Your task to perform on an android device: What is the news today? Image 0: 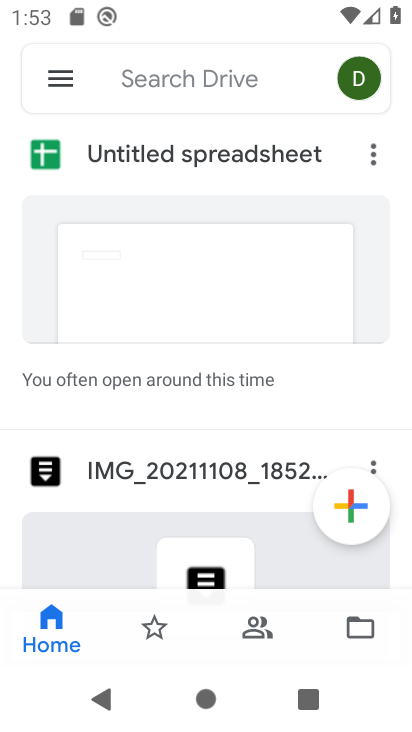
Step 0: press home button
Your task to perform on an android device: What is the news today? Image 1: 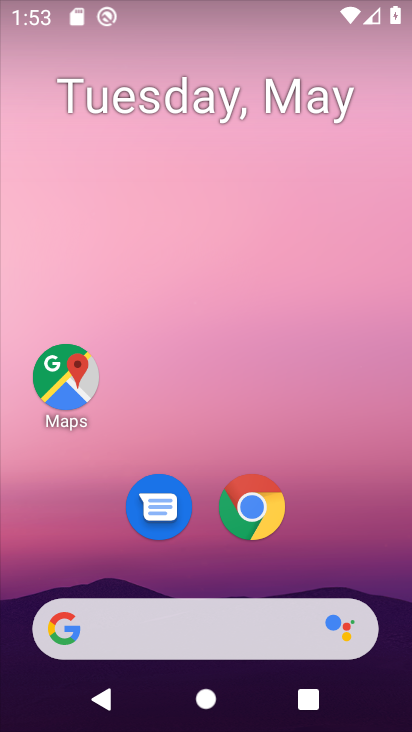
Step 1: drag from (214, 575) to (225, 138)
Your task to perform on an android device: What is the news today? Image 2: 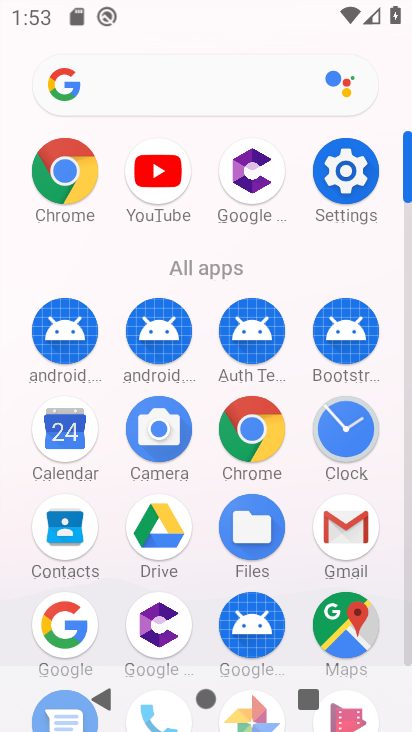
Step 2: click (77, 622)
Your task to perform on an android device: What is the news today? Image 3: 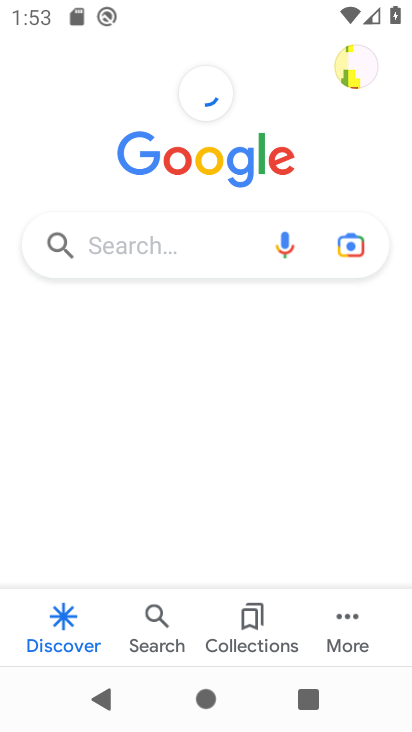
Step 3: click (173, 241)
Your task to perform on an android device: What is the news today? Image 4: 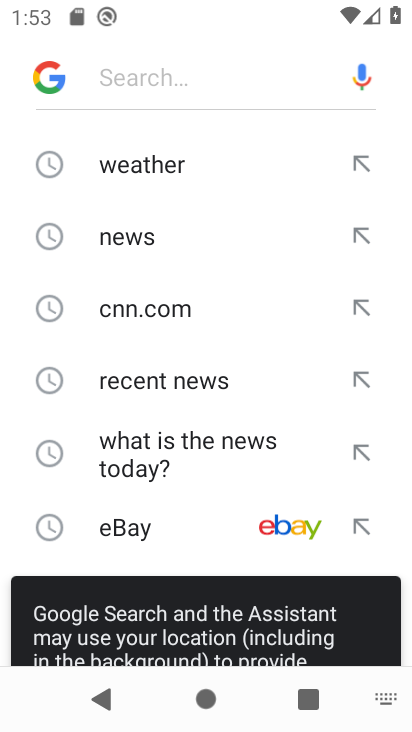
Step 4: click (173, 241)
Your task to perform on an android device: What is the news today? Image 5: 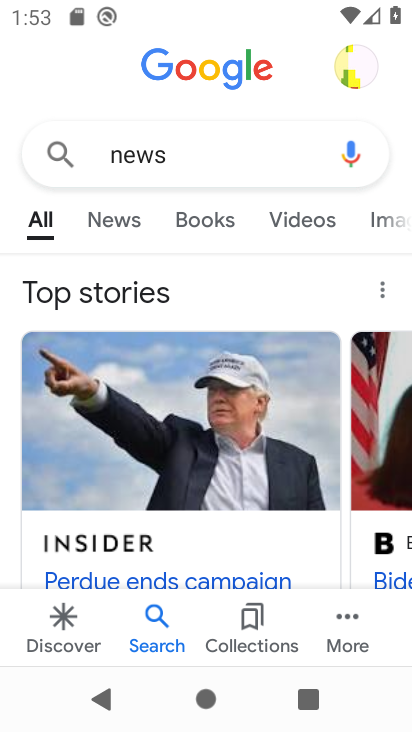
Step 5: click (105, 221)
Your task to perform on an android device: What is the news today? Image 6: 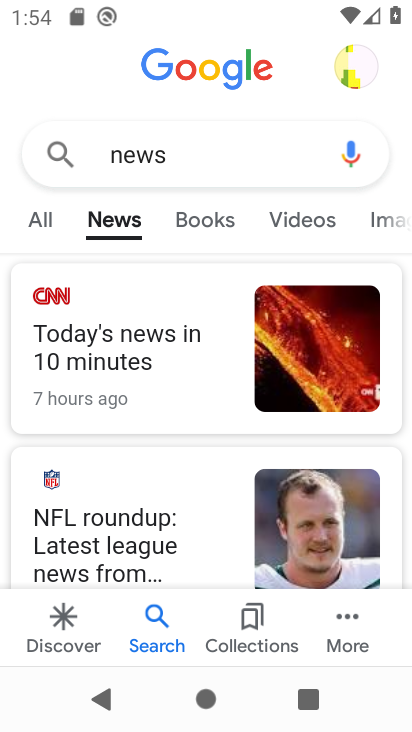
Step 6: task complete